Your task to perform on an android device: Search for Mexican restaurants on Maps Image 0: 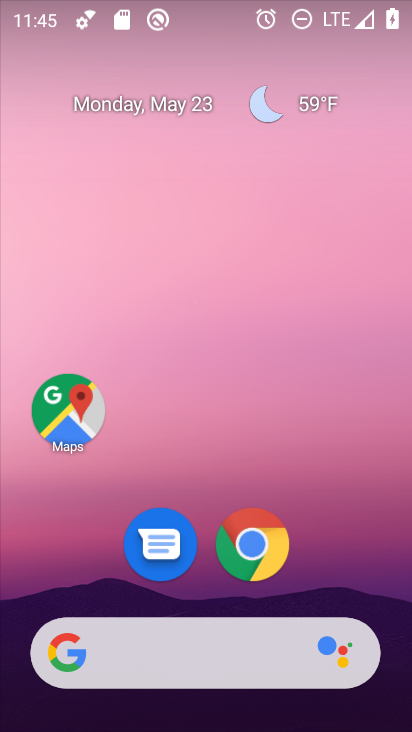
Step 0: click (66, 416)
Your task to perform on an android device: Search for Mexican restaurants on Maps Image 1: 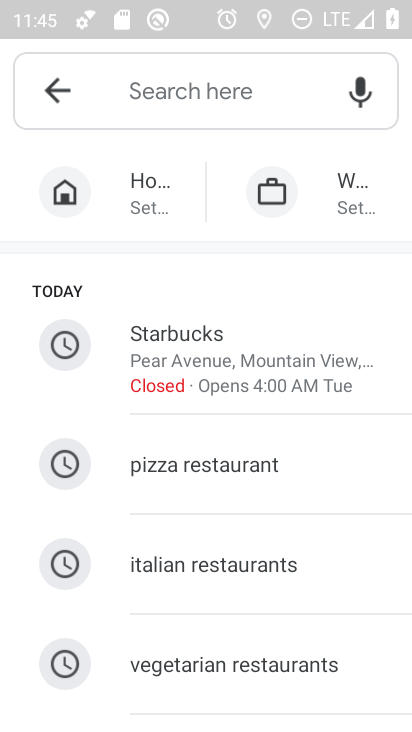
Step 1: click (167, 93)
Your task to perform on an android device: Search for Mexican restaurants on Maps Image 2: 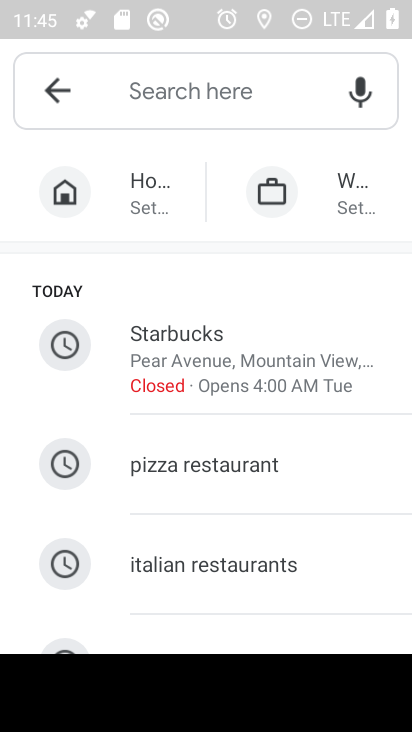
Step 2: type "mexican restaurants"
Your task to perform on an android device: Search for Mexican restaurants on Maps Image 3: 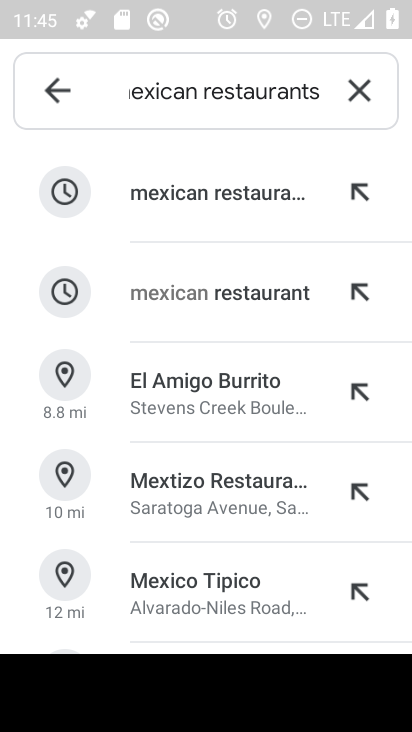
Step 3: click (193, 207)
Your task to perform on an android device: Search for Mexican restaurants on Maps Image 4: 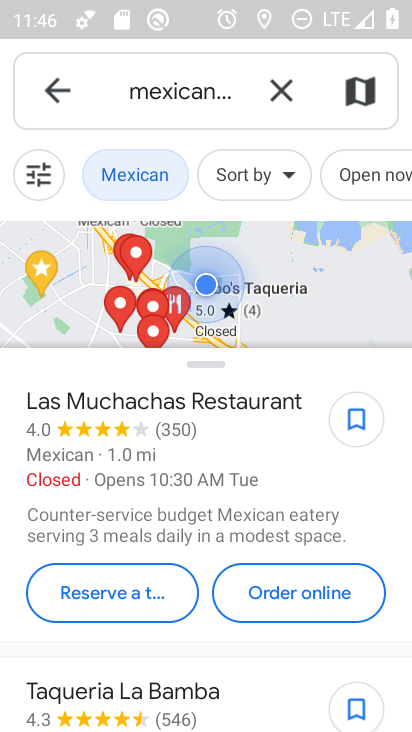
Step 4: task complete